Your task to perform on an android device: What is the news today? Image 0: 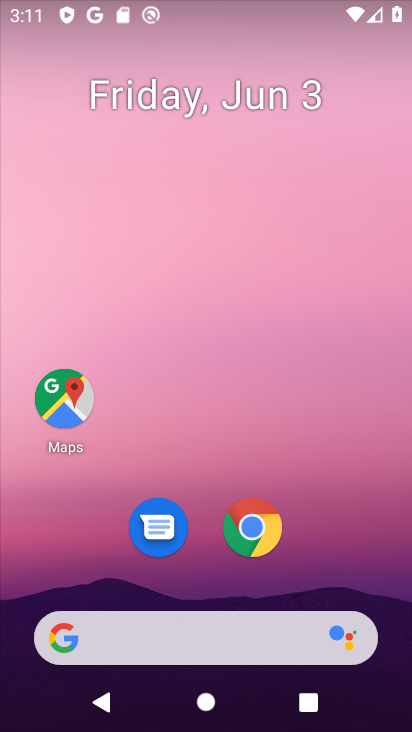
Step 0: drag from (223, 588) to (215, 290)
Your task to perform on an android device: What is the news today? Image 1: 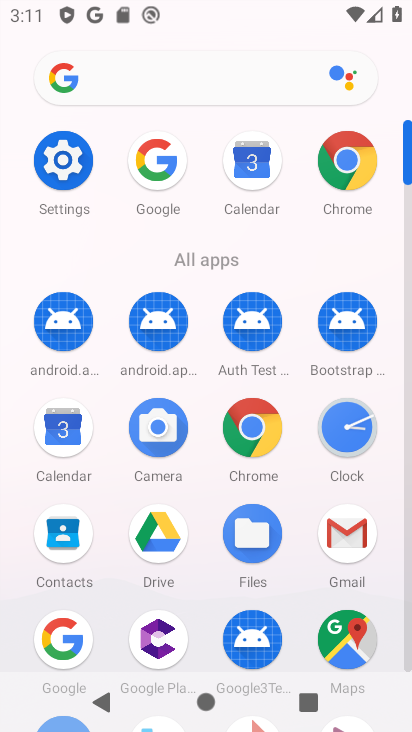
Step 1: click (362, 157)
Your task to perform on an android device: What is the news today? Image 2: 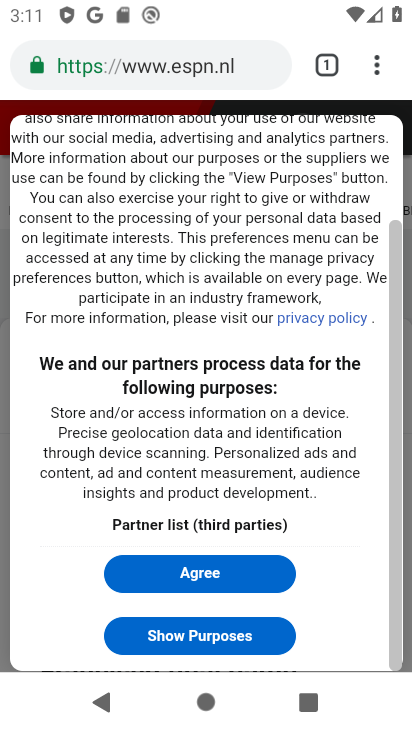
Step 2: click (371, 60)
Your task to perform on an android device: What is the news today? Image 3: 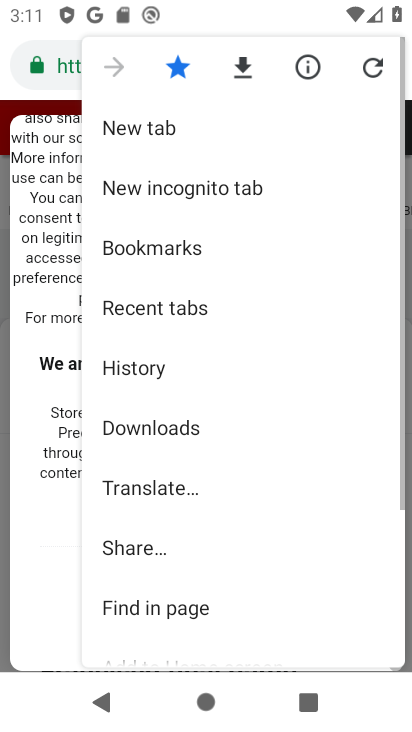
Step 3: click (137, 128)
Your task to perform on an android device: What is the news today? Image 4: 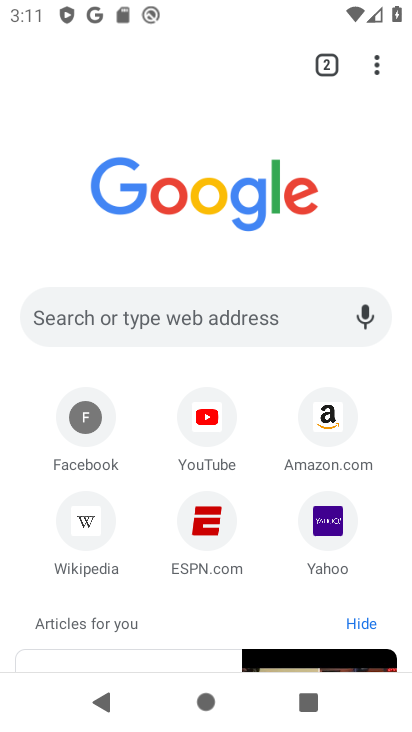
Step 4: click (175, 311)
Your task to perform on an android device: What is the news today? Image 5: 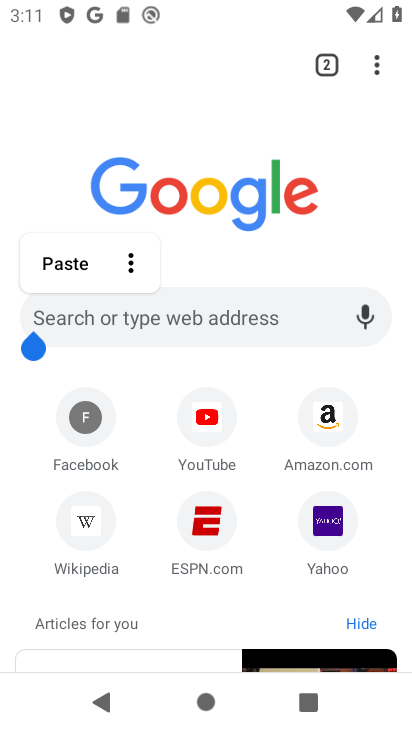
Step 5: type "What is the news today?"
Your task to perform on an android device: What is the news today? Image 6: 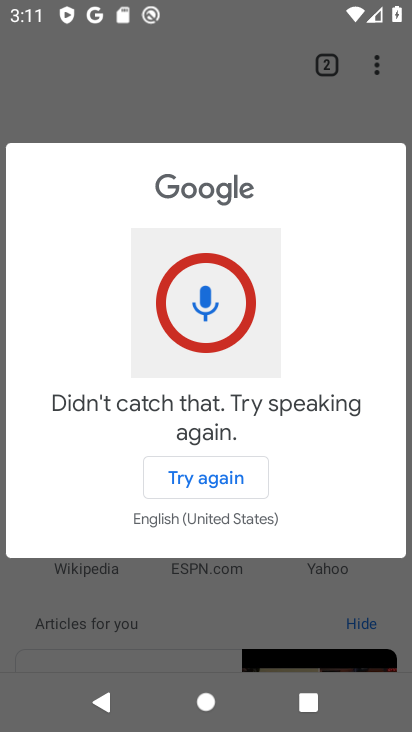
Step 6: click (241, 606)
Your task to perform on an android device: What is the news today? Image 7: 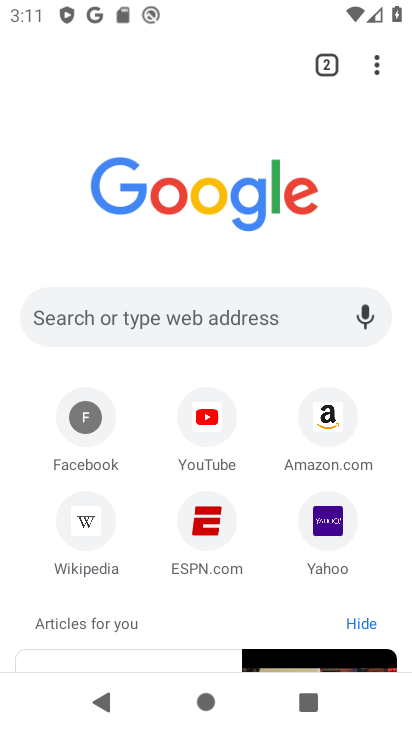
Step 7: click (257, 303)
Your task to perform on an android device: What is the news today? Image 8: 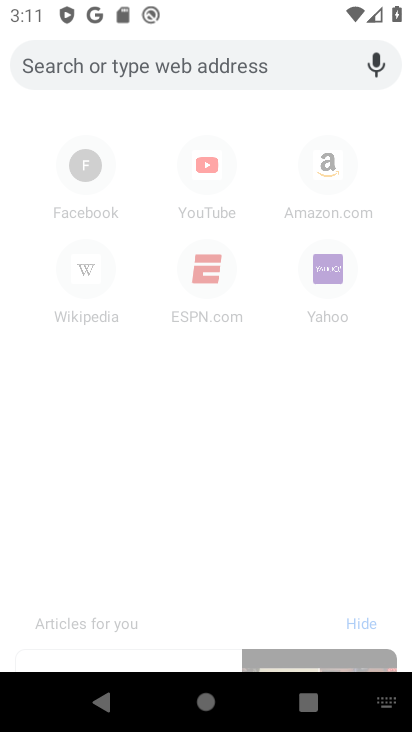
Step 8: click (264, 59)
Your task to perform on an android device: What is the news today? Image 9: 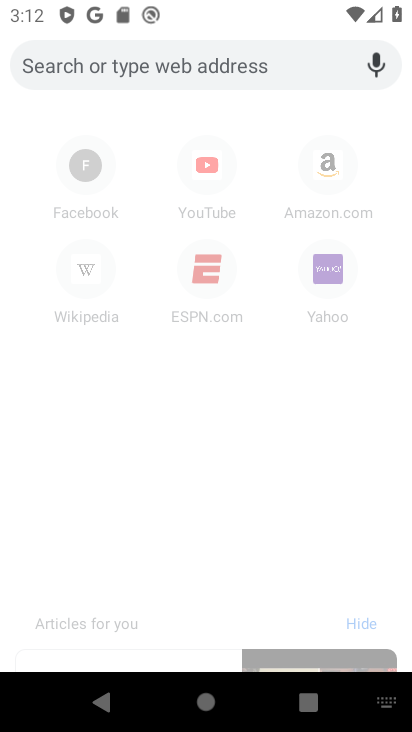
Step 9: type "What is the news today?"
Your task to perform on an android device: What is the news today? Image 10: 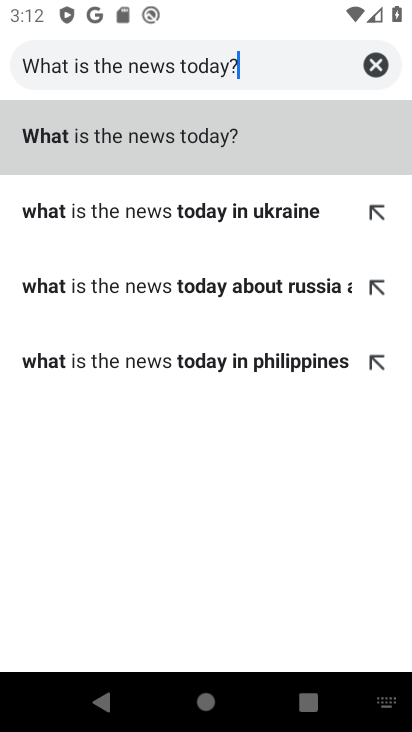
Step 10: click (176, 148)
Your task to perform on an android device: What is the news today? Image 11: 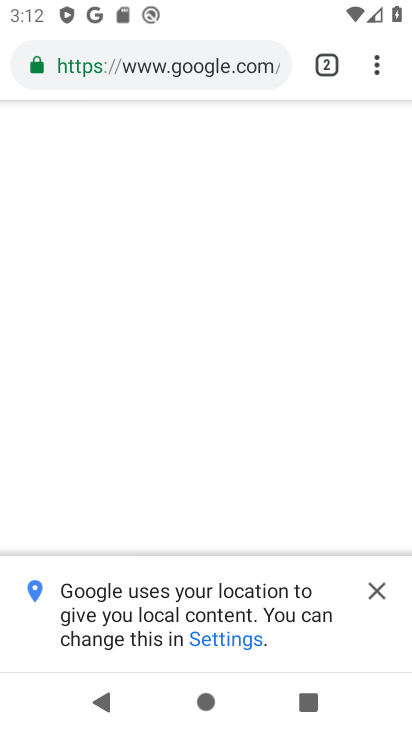
Step 11: task complete